Your task to perform on an android device: Open calendar and show me the fourth week of next month Image 0: 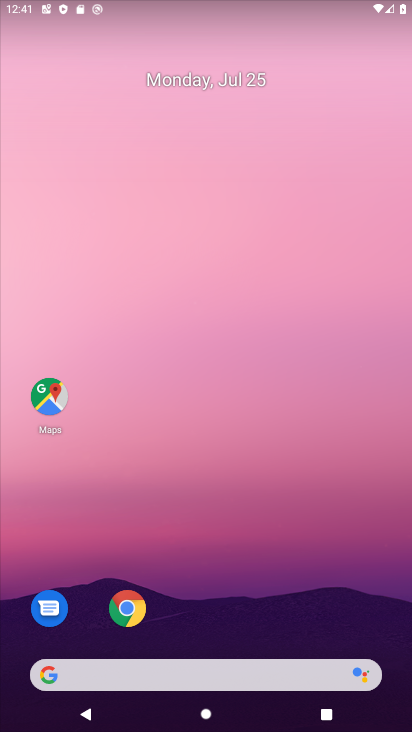
Step 0: drag from (261, 578) to (268, 51)
Your task to perform on an android device: Open calendar and show me the fourth week of next month Image 1: 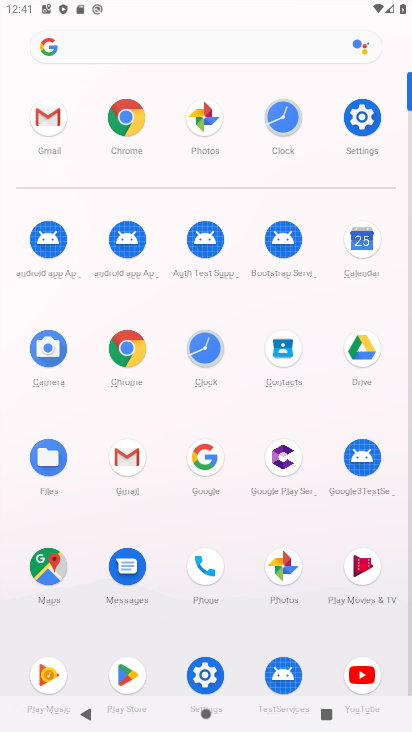
Step 1: click (370, 242)
Your task to perform on an android device: Open calendar and show me the fourth week of next month Image 2: 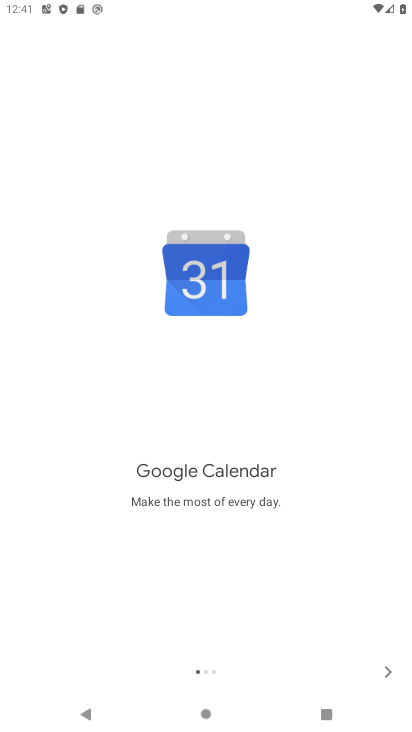
Step 2: click (384, 668)
Your task to perform on an android device: Open calendar and show me the fourth week of next month Image 3: 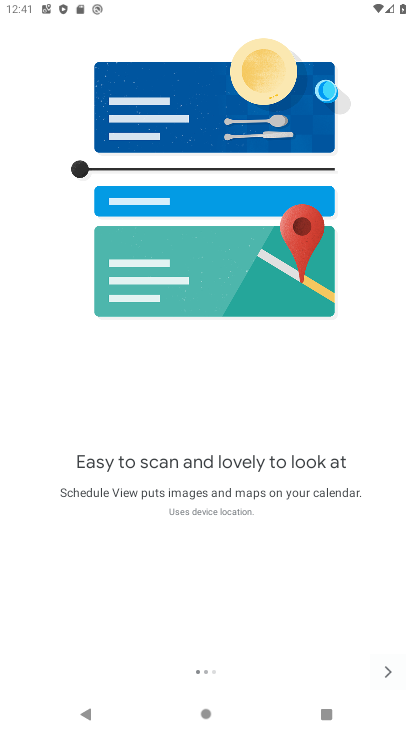
Step 3: click (384, 668)
Your task to perform on an android device: Open calendar and show me the fourth week of next month Image 4: 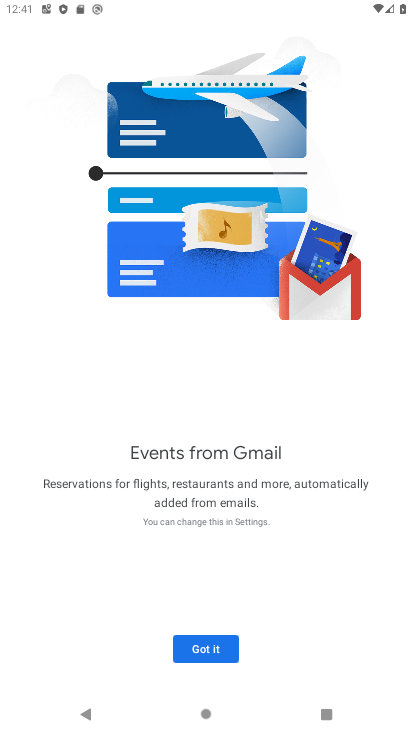
Step 4: click (385, 667)
Your task to perform on an android device: Open calendar and show me the fourth week of next month Image 5: 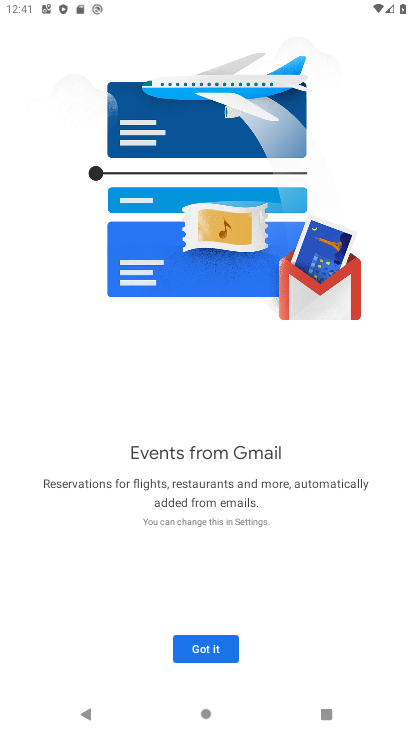
Step 5: click (211, 657)
Your task to perform on an android device: Open calendar and show me the fourth week of next month Image 6: 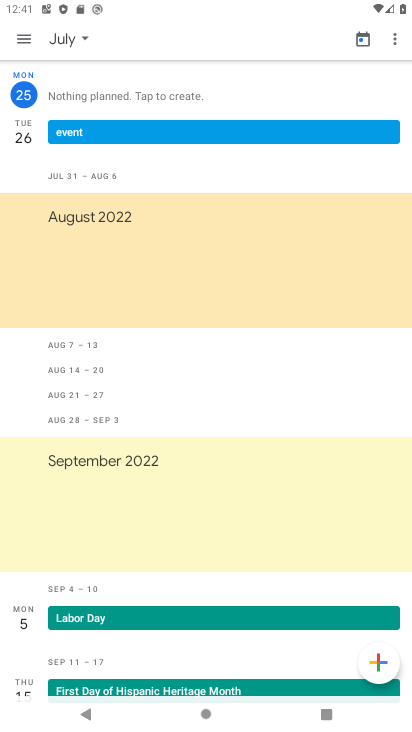
Step 6: click (72, 32)
Your task to perform on an android device: Open calendar and show me the fourth week of next month Image 7: 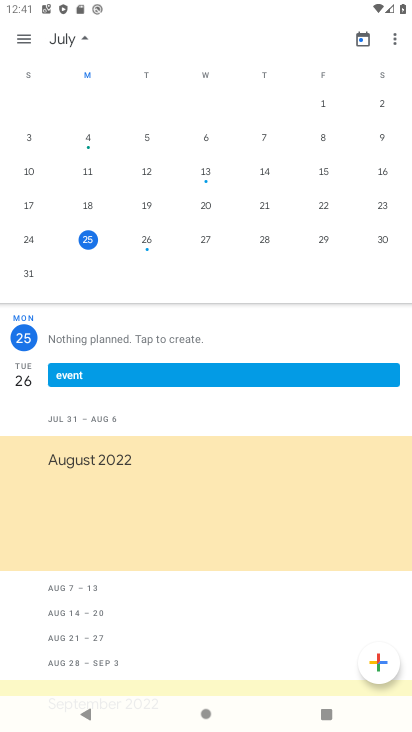
Step 7: drag from (358, 196) to (43, 297)
Your task to perform on an android device: Open calendar and show me the fourth week of next month Image 8: 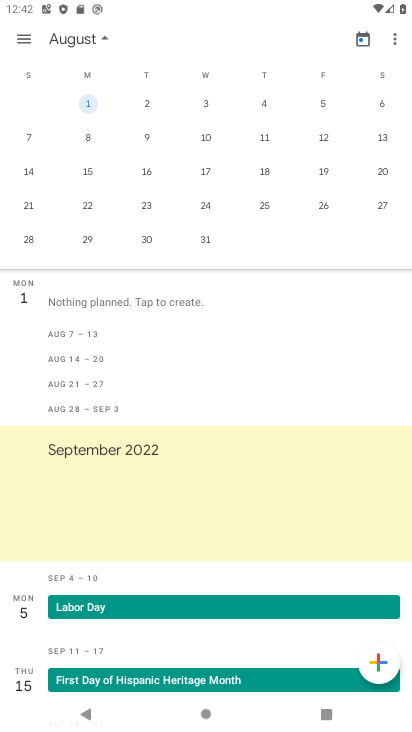
Step 8: click (35, 207)
Your task to perform on an android device: Open calendar and show me the fourth week of next month Image 9: 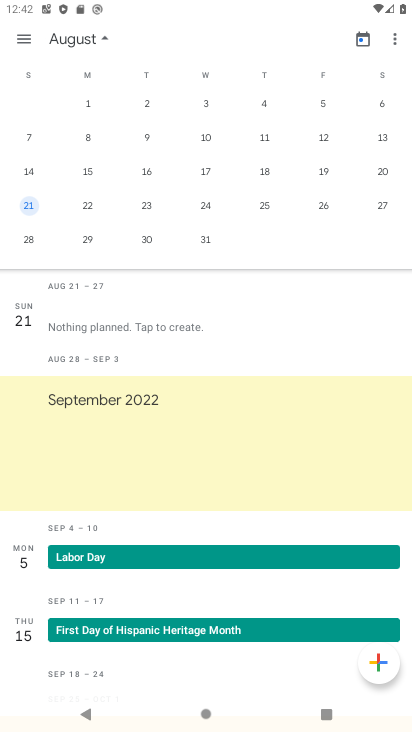
Step 9: click (98, 45)
Your task to perform on an android device: Open calendar and show me the fourth week of next month Image 10: 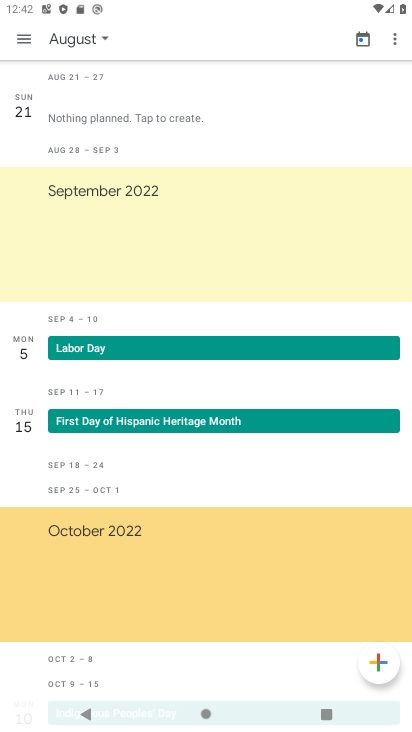
Step 10: task complete